Your task to perform on an android device: Open Google Image 0: 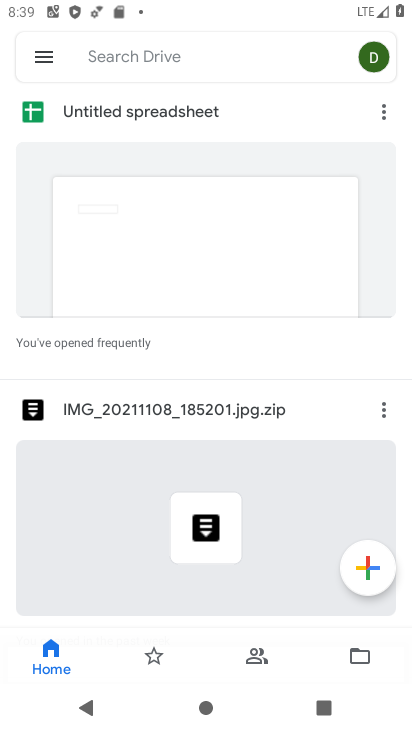
Step 0: press home button
Your task to perform on an android device: Open Google Image 1: 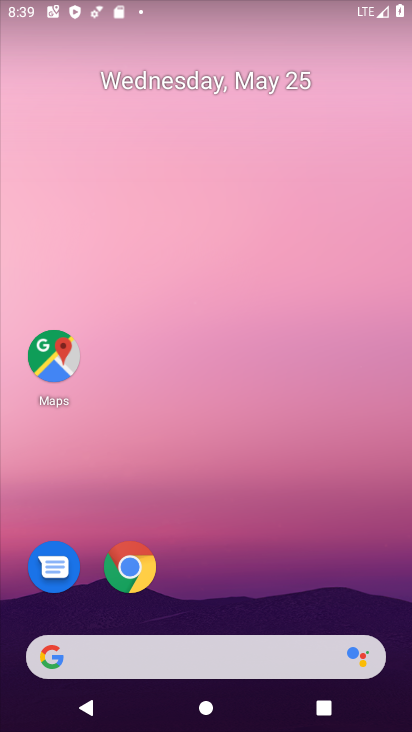
Step 1: click (202, 656)
Your task to perform on an android device: Open Google Image 2: 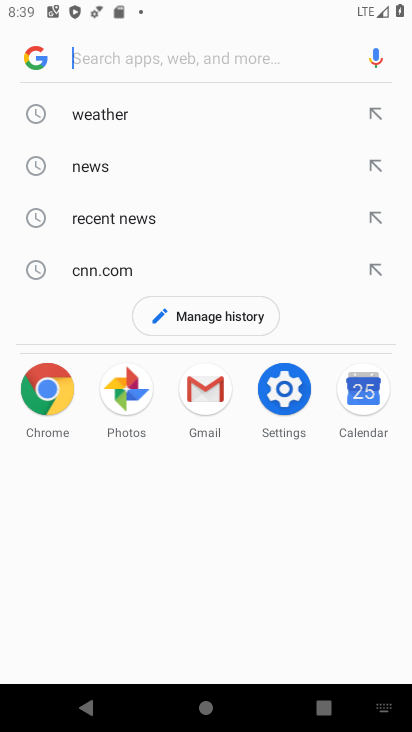
Step 2: click (35, 55)
Your task to perform on an android device: Open Google Image 3: 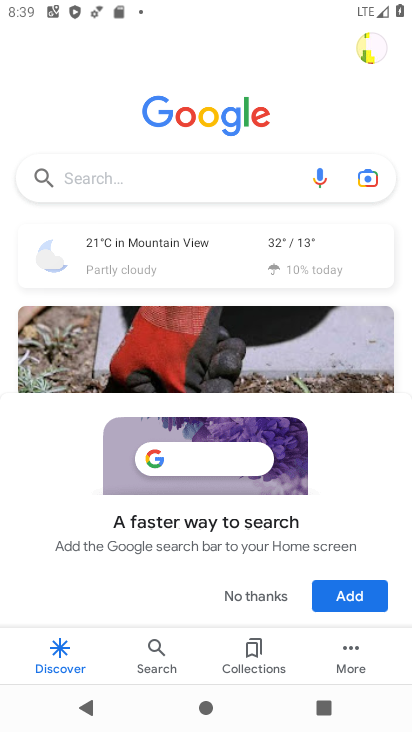
Step 3: click (243, 587)
Your task to perform on an android device: Open Google Image 4: 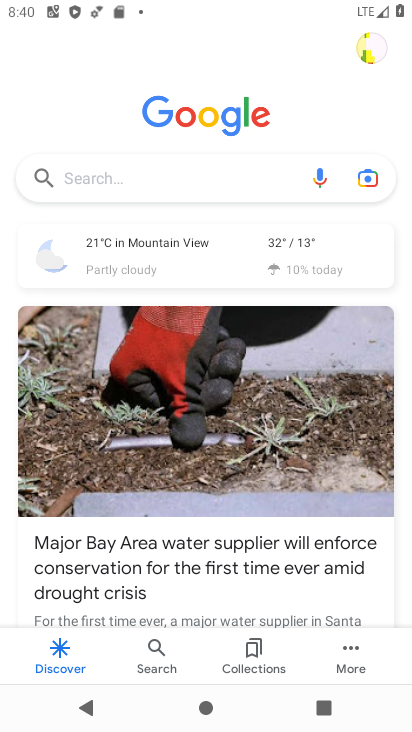
Step 4: task complete